Your task to perform on an android device: create a new album in the google photos Image 0: 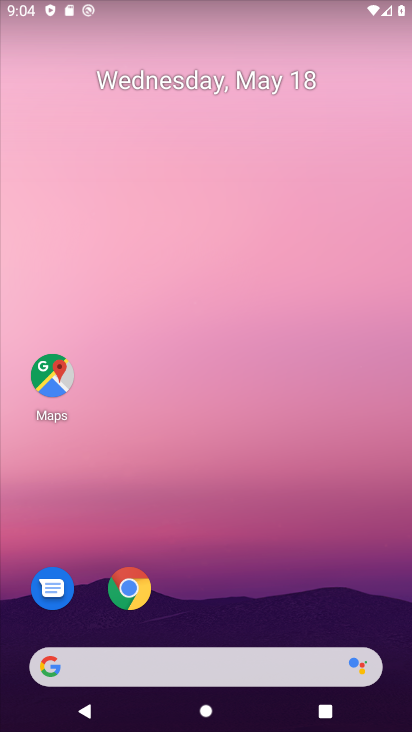
Step 0: drag from (276, 700) to (411, 134)
Your task to perform on an android device: create a new album in the google photos Image 1: 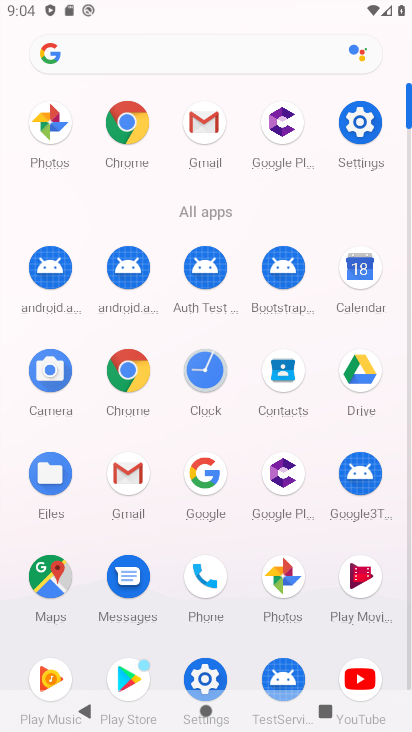
Step 1: click (275, 575)
Your task to perform on an android device: create a new album in the google photos Image 2: 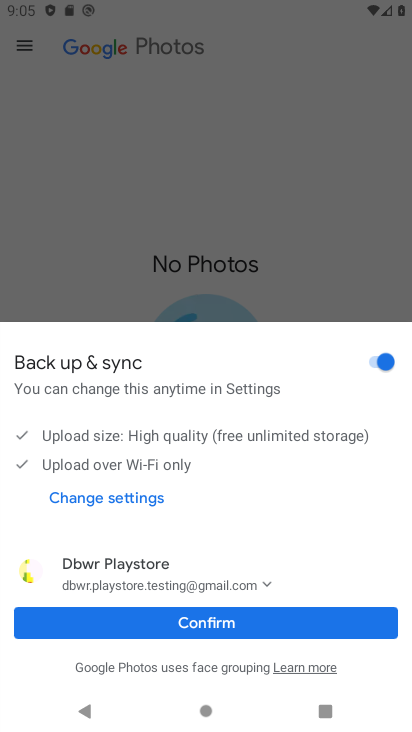
Step 2: click (115, 624)
Your task to perform on an android device: create a new album in the google photos Image 3: 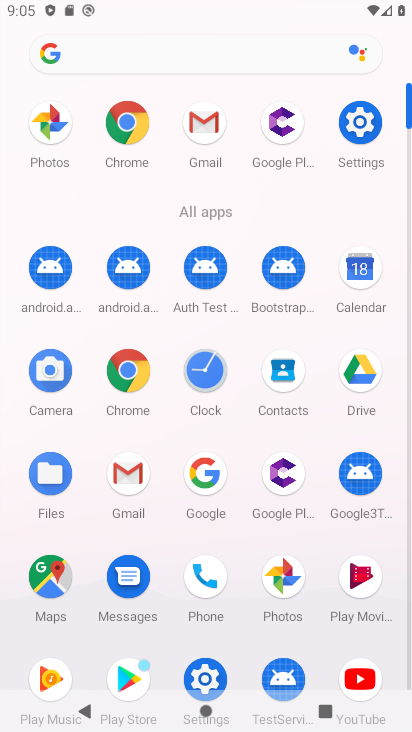
Step 3: click (283, 582)
Your task to perform on an android device: create a new album in the google photos Image 4: 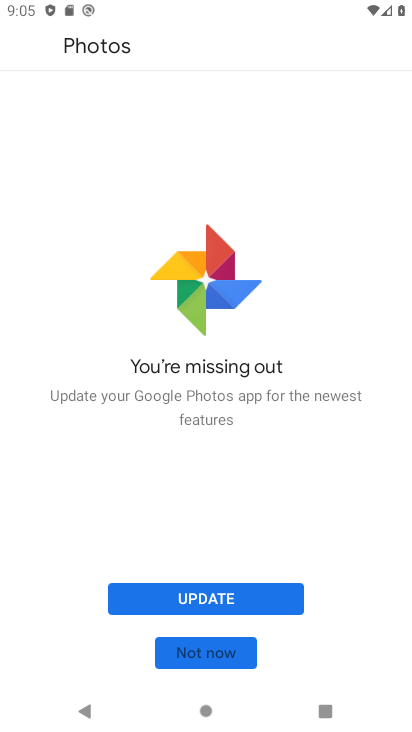
Step 4: click (218, 599)
Your task to perform on an android device: create a new album in the google photos Image 5: 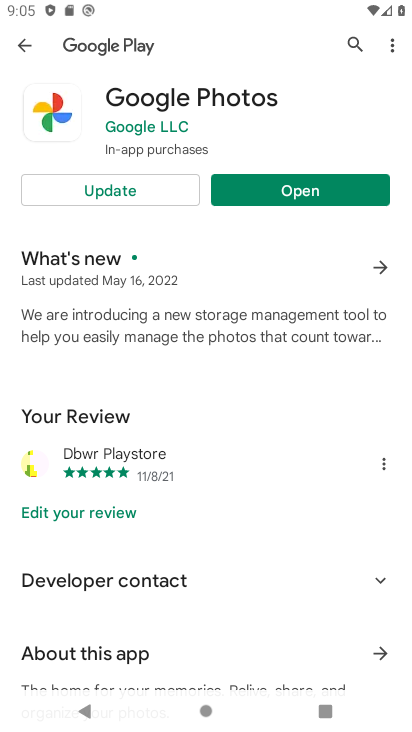
Step 5: click (302, 191)
Your task to perform on an android device: create a new album in the google photos Image 6: 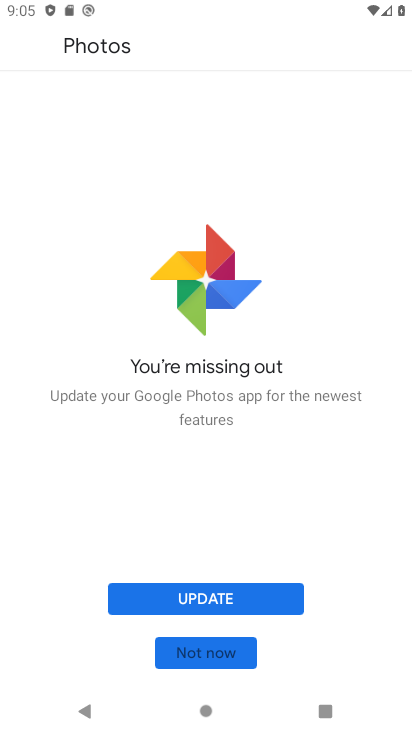
Step 6: click (160, 601)
Your task to perform on an android device: create a new album in the google photos Image 7: 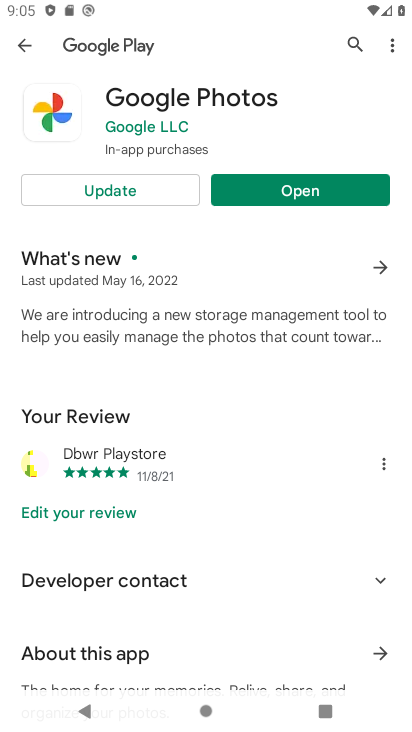
Step 7: click (85, 187)
Your task to perform on an android device: create a new album in the google photos Image 8: 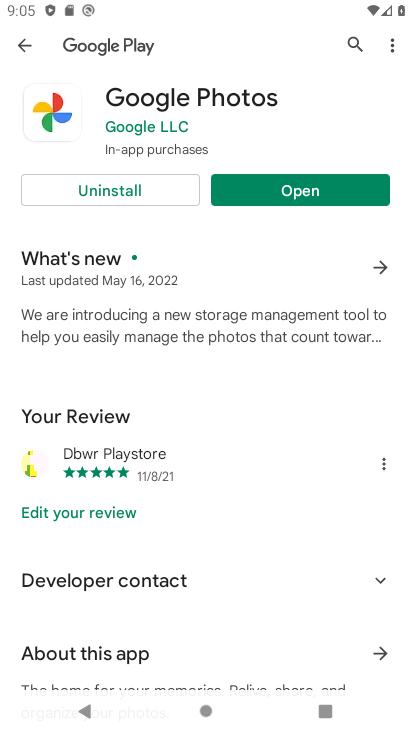
Step 8: click (281, 216)
Your task to perform on an android device: create a new album in the google photos Image 9: 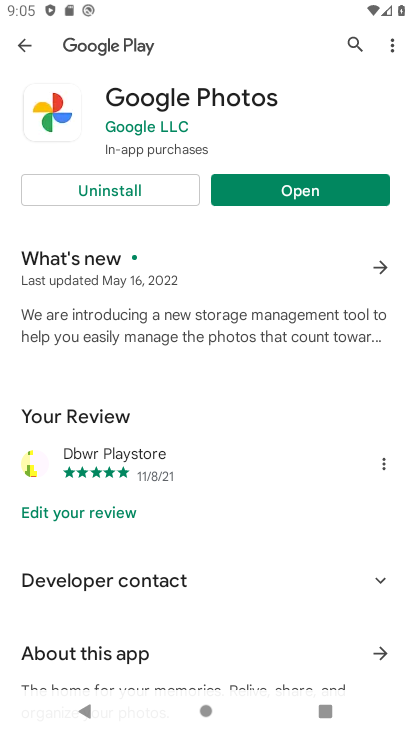
Step 9: click (290, 182)
Your task to perform on an android device: create a new album in the google photos Image 10: 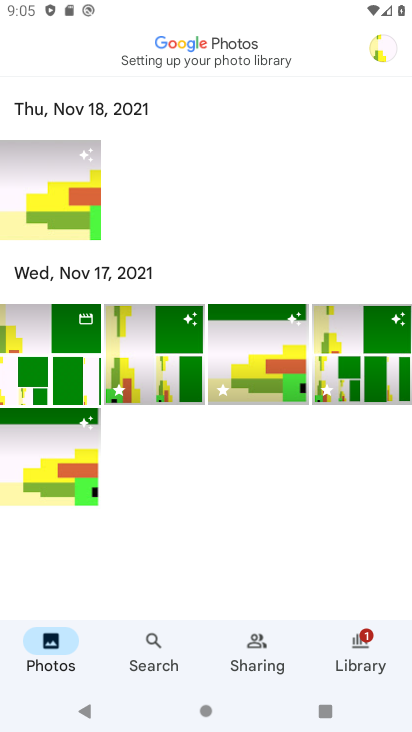
Step 10: click (157, 353)
Your task to perform on an android device: create a new album in the google photos Image 11: 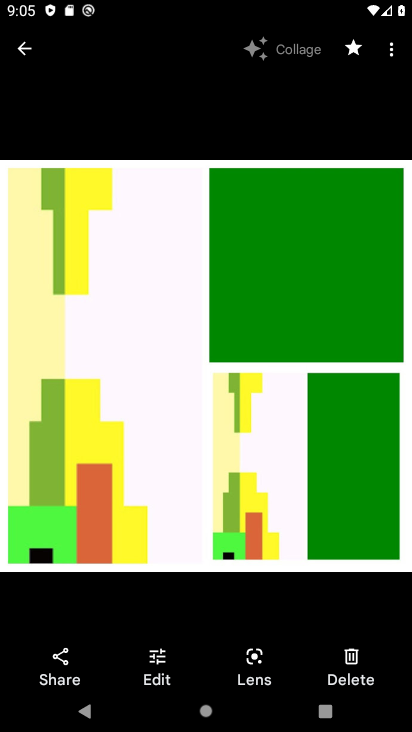
Step 11: click (378, 48)
Your task to perform on an android device: create a new album in the google photos Image 12: 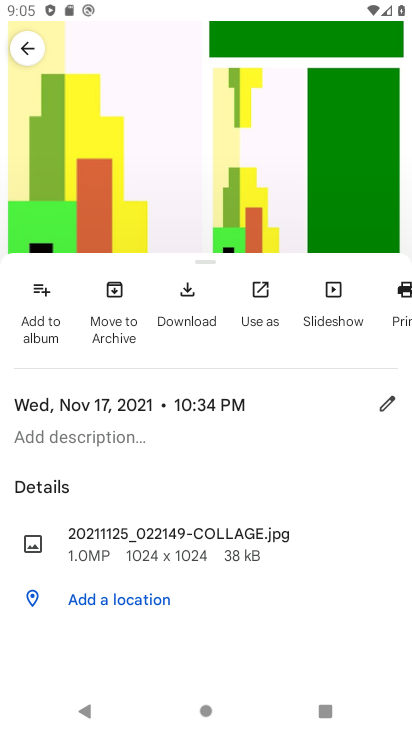
Step 12: click (32, 307)
Your task to perform on an android device: create a new album in the google photos Image 13: 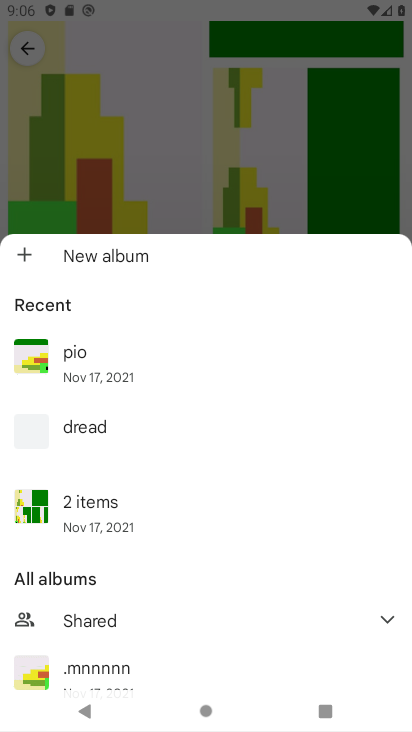
Step 13: click (23, 246)
Your task to perform on an android device: create a new album in the google photos Image 14: 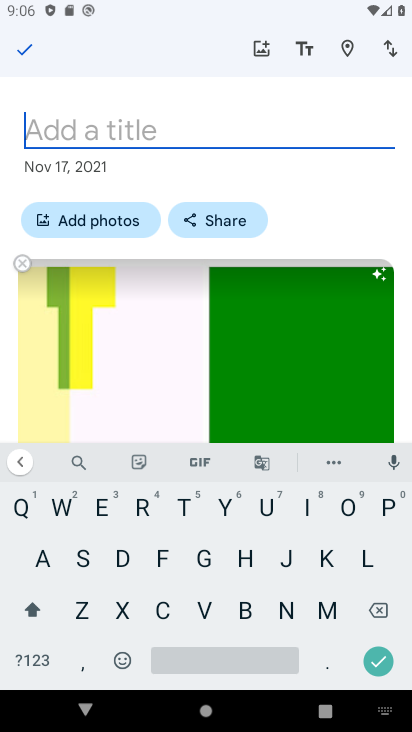
Step 14: click (87, 565)
Your task to perform on an android device: create a new album in the google photos Image 15: 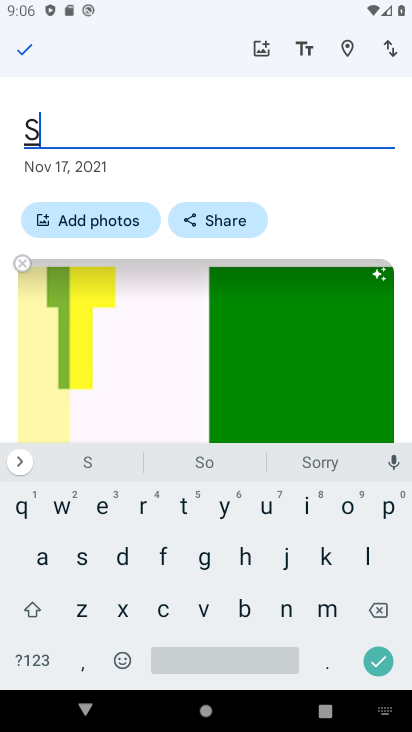
Step 15: click (137, 510)
Your task to perform on an android device: create a new album in the google photos Image 16: 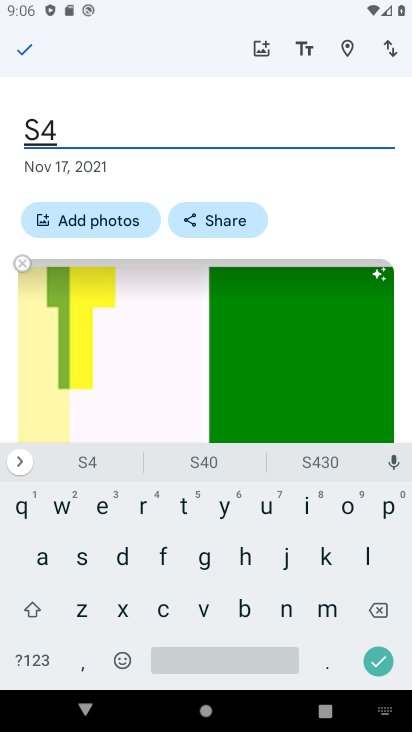
Step 16: click (22, 508)
Your task to perform on an android device: create a new album in the google photos Image 17: 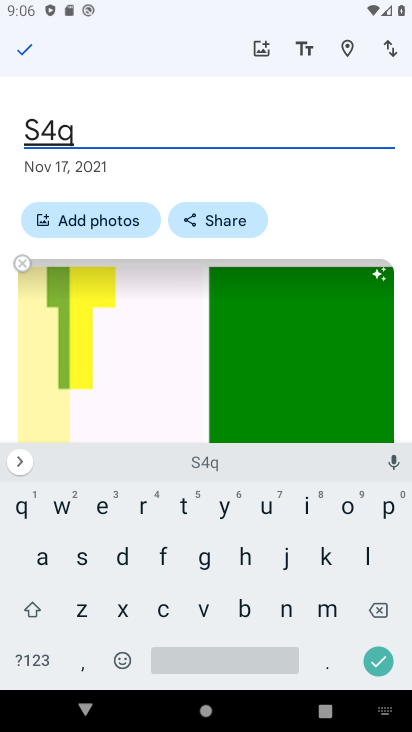
Step 17: click (20, 46)
Your task to perform on an android device: create a new album in the google photos Image 18: 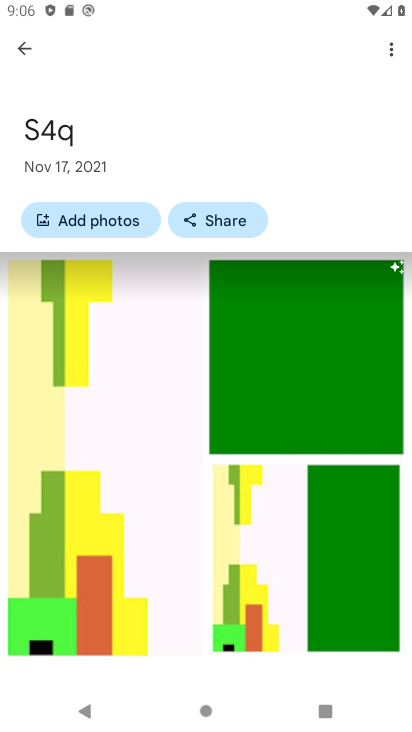
Step 18: task complete